Your task to perform on an android device: Open maps Image 0: 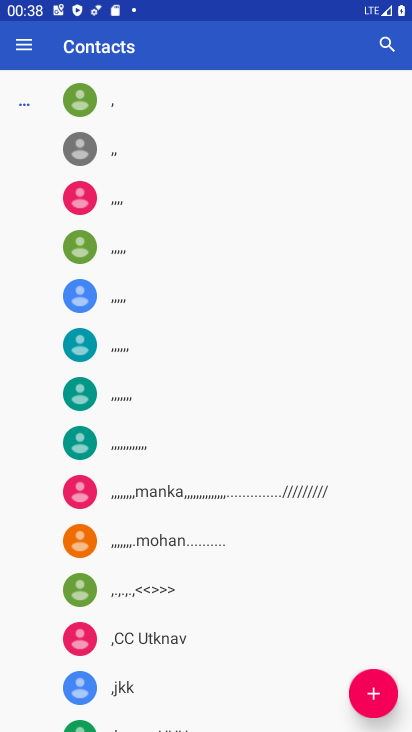
Step 0: press home button
Your task to perform on an android device: Open maps Image 1: 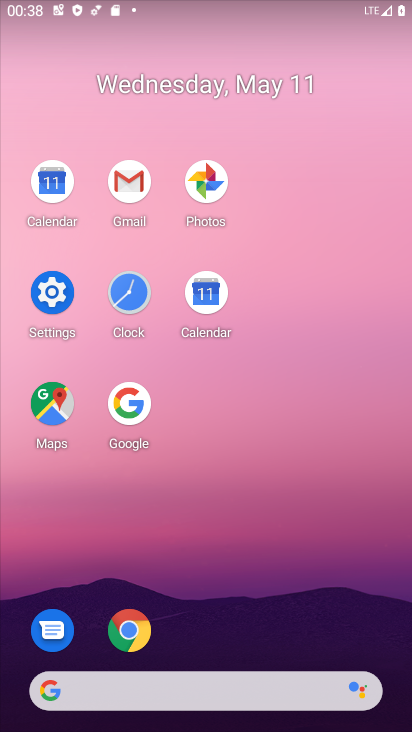
Step 1: click (48, 427)
Your task to perform on an android device: Open maps Image 2: 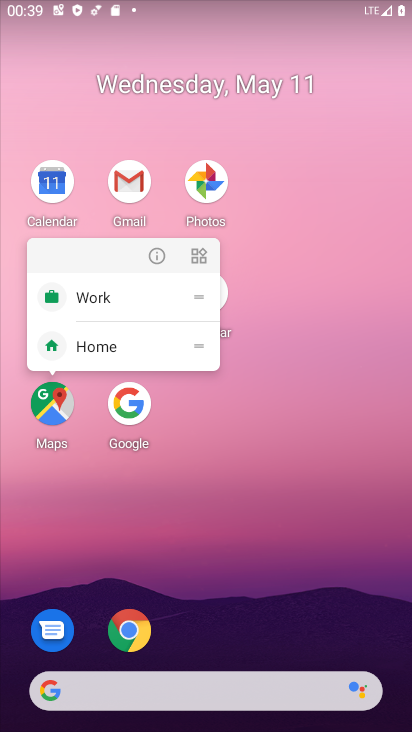
Step 2: click (60, 400)
Your task to perform on an android device: Open maps Image 3: 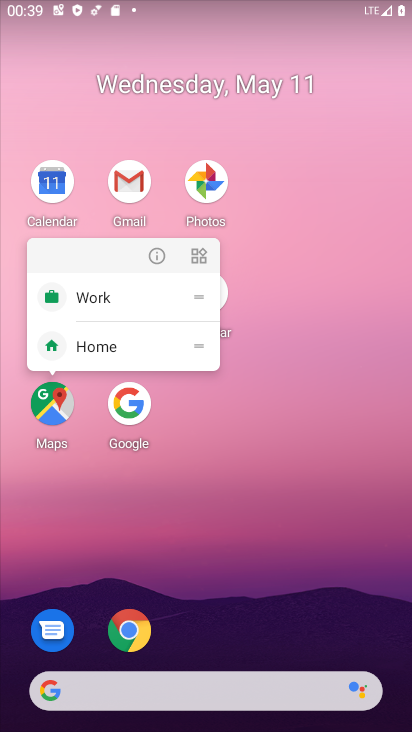
Step 3: click (60, 406)
Your task to perform on an android device: Open maps Image 4: 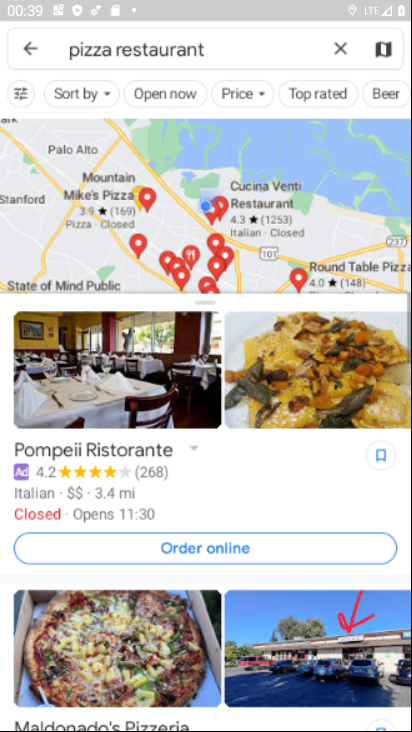
Step 4: task complete